Your task to perform on an android device: turn off smart reply in the gmail app Image 0: 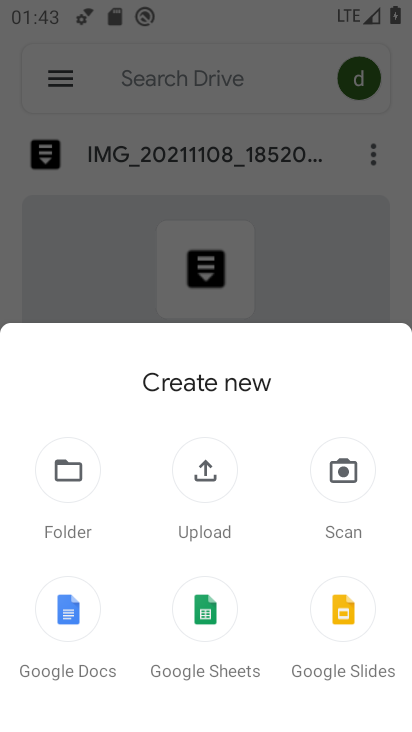
Step 0: press home button
Your task to perform on an android device: turn off smart reply in the gmail app Image 1: 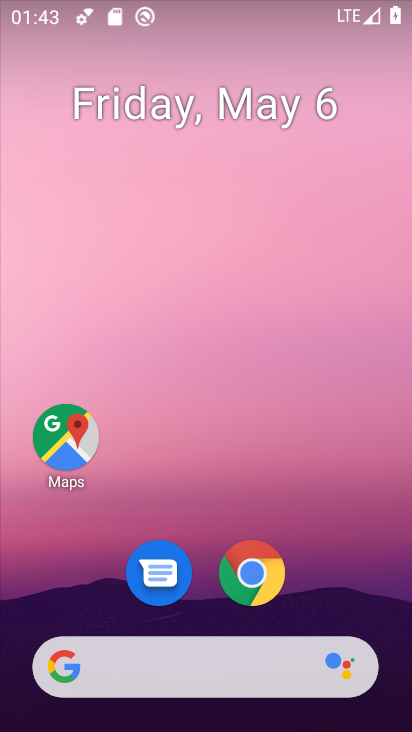
Step 1: drag from (313, 606) to (331, 291)
Your task to perform on an android device: turn off smart reply in the gmail app Image 2: 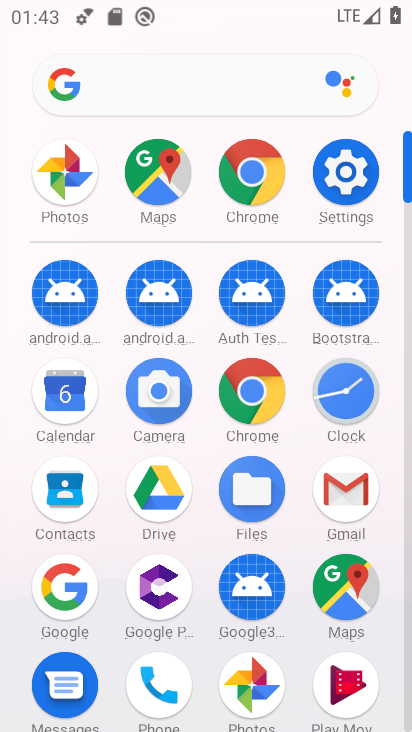
Step 2: click (354, 493)
Your task to perform on an android device: turn off smart reply in the gmail app Image 3: 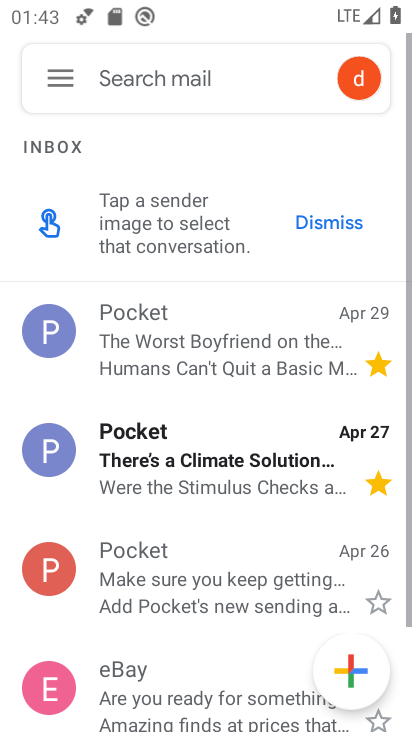
Step 3: click (63, 71)
Your task to perform on an android device: turn off smart reply in the gmail app Image 4: 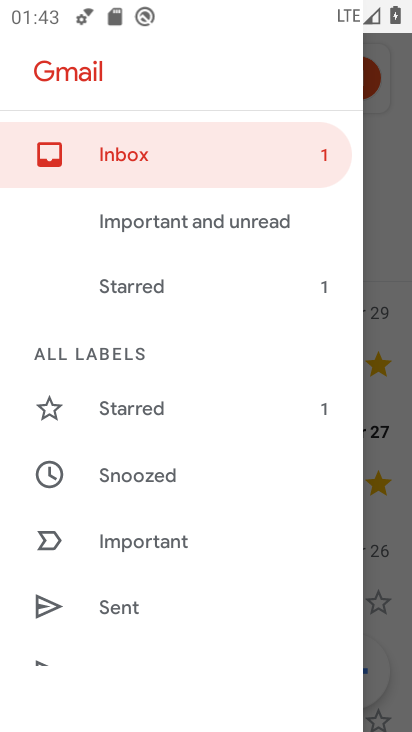
Step 4: drag from (176, 622) to (237, 193)
Your task to perform on an android device: turn off smart reply in the gmail app Image 5: 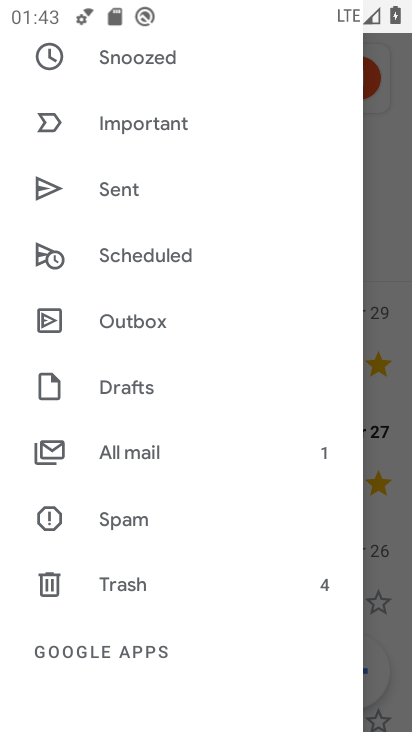
Step 5: drag from (148, 650) to (214, 243)
Your task to perform on an android device: turn off smart reply in the gmail app Image 6: 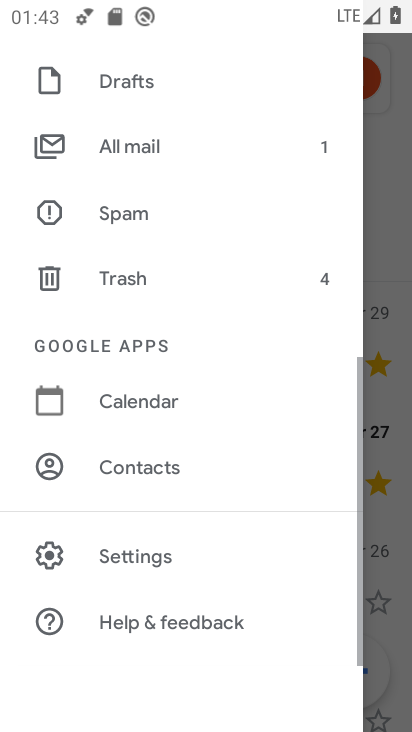
Step 6: click (144, 560)
Your task to perform on an android device: turn off smart reply in the gmail app Image 7: 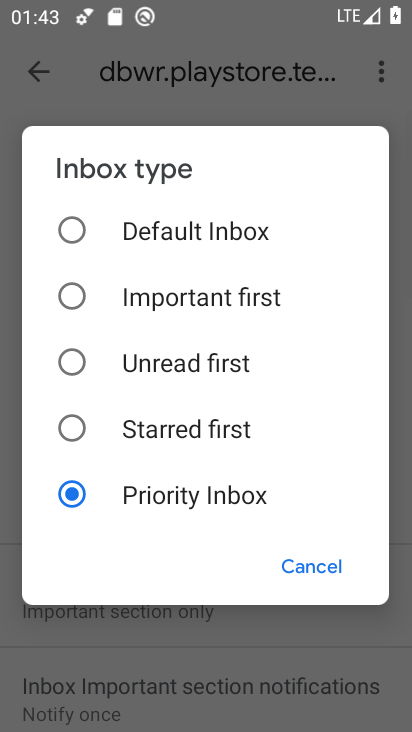
Step 7: click (297, 568)
Your task to perform on an android device: turn off smart reply in the gmail app Image 8: 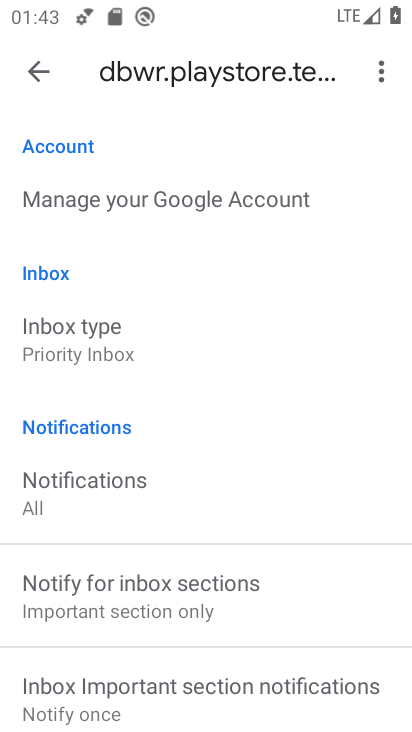
Step 8: drag from (260, 641) to (284, 152)
Your task to perform on an android device: turn off smart reply in the gmail app Image 9: 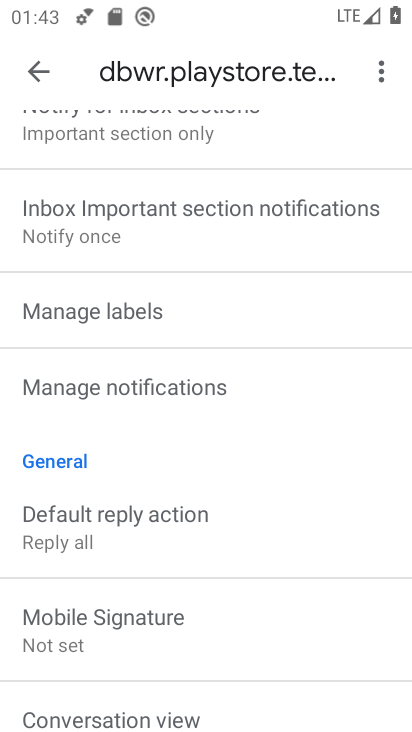
Step 9: drag from (210, 650) to (235, 149)
Your task to perform on an android device: turn off smart reply in the gmail app Image 10: 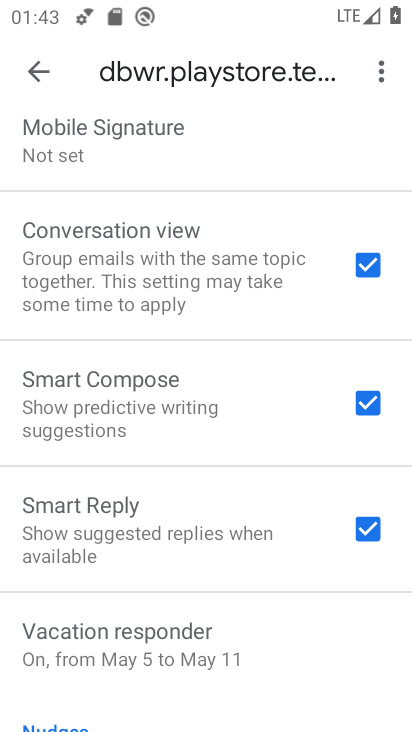
Step 10: click (361, 535)
Your task to perform on an android device: turn off smart reply in the gmail app Image 11: 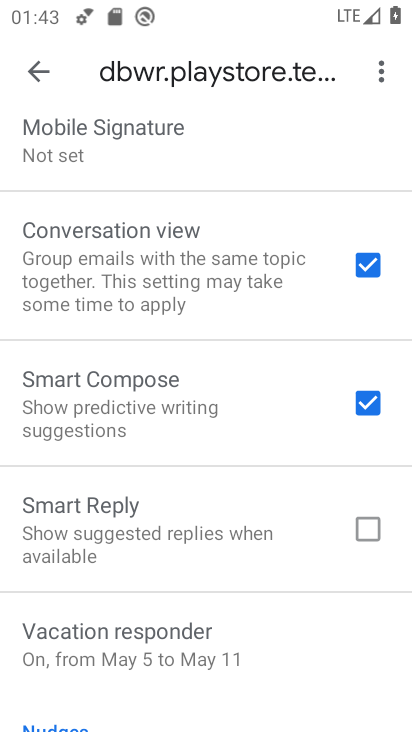
Step 11: task complete